Your task to perform on an android device: install app "Google Chat" Image 0: 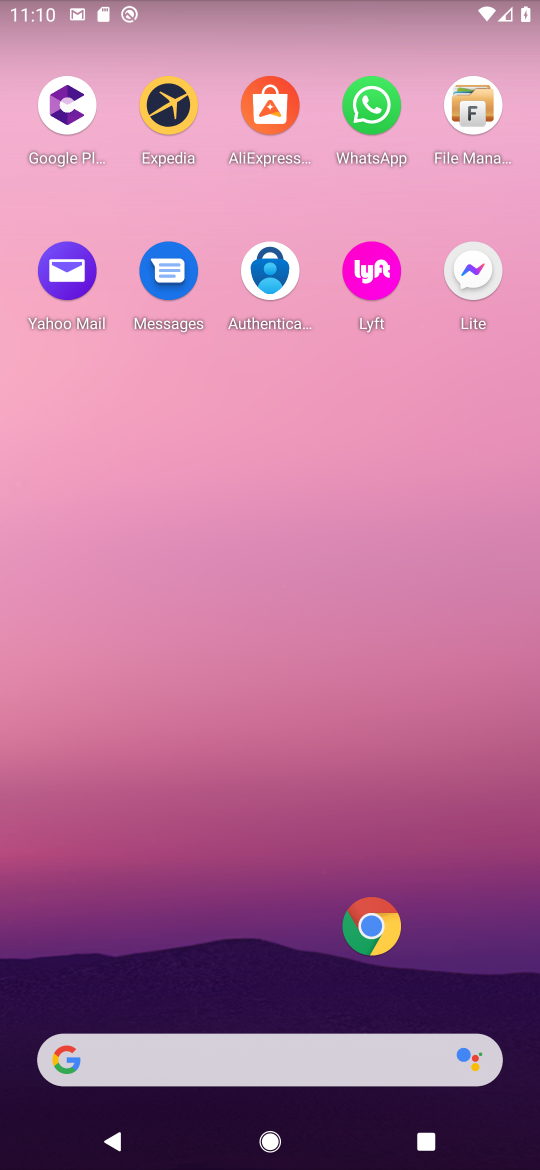
Step 0: drag from (223, 998) to (392, 212)
Your task to perform on an android device: install app "Google Chat" Image 1: 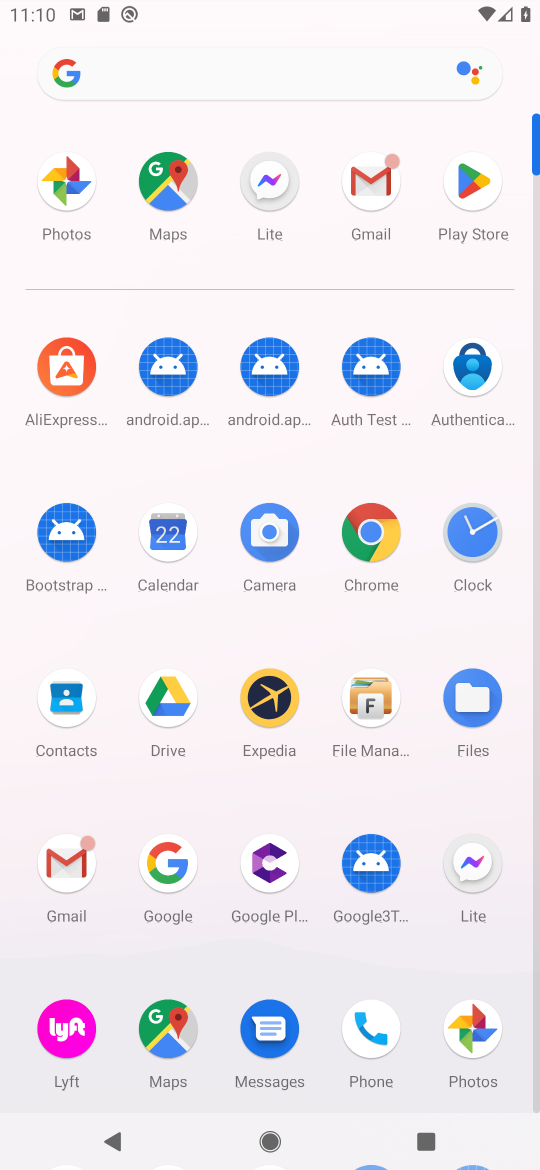
Step 1: click (458, 194)
Your task to perform on an android device: install app "Google Chat" Image 2: 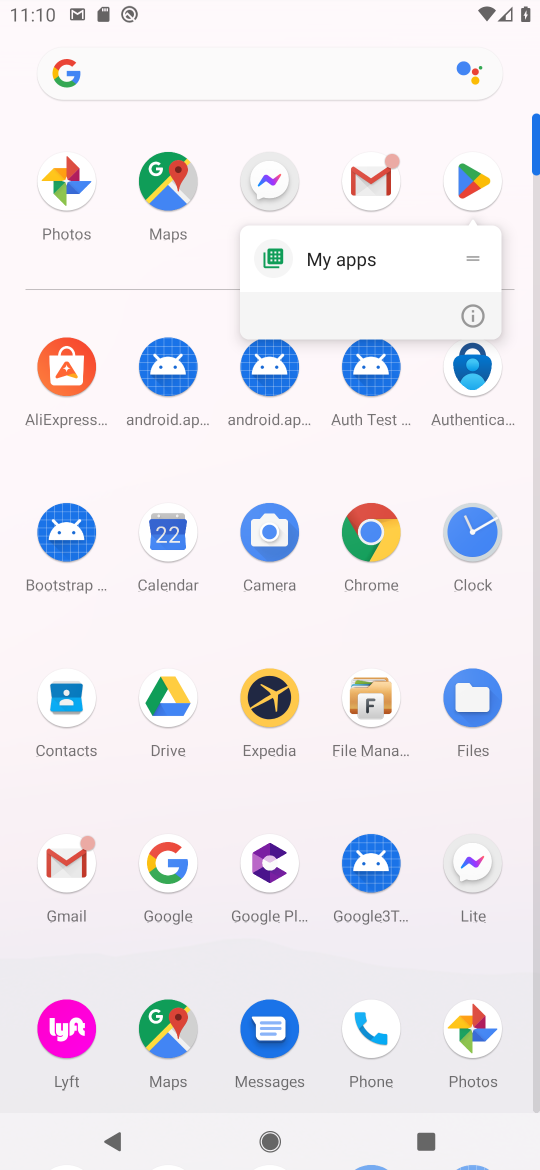
Step 2: click (471, 180)
Your task to perform on an android device: install app "Google Chat" Image 3: 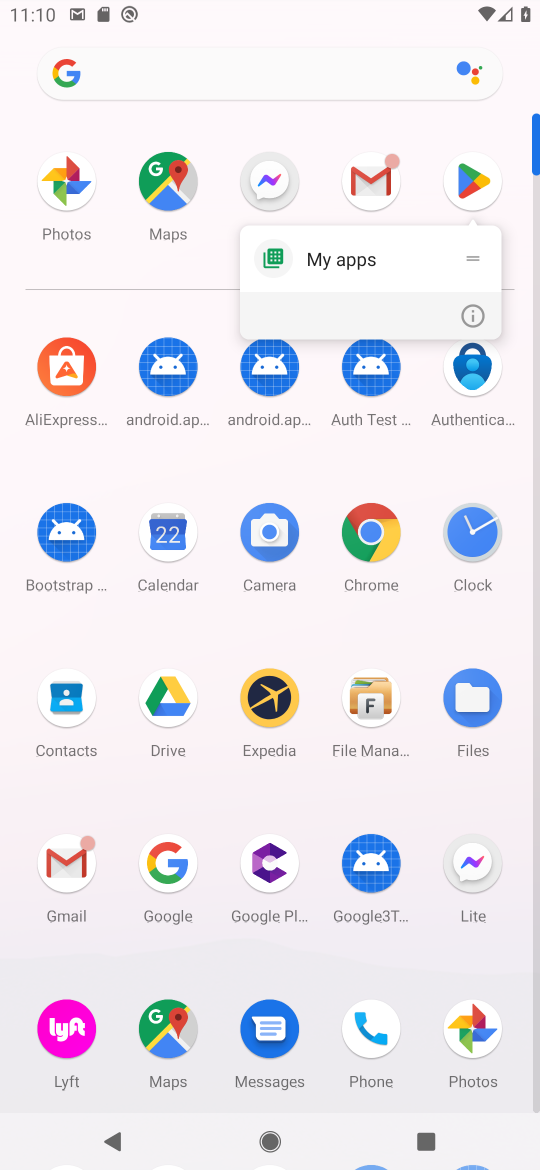
Step 3: click (471, 180)
Your task to perform on an android device: install app "Google Chat" Image 4: 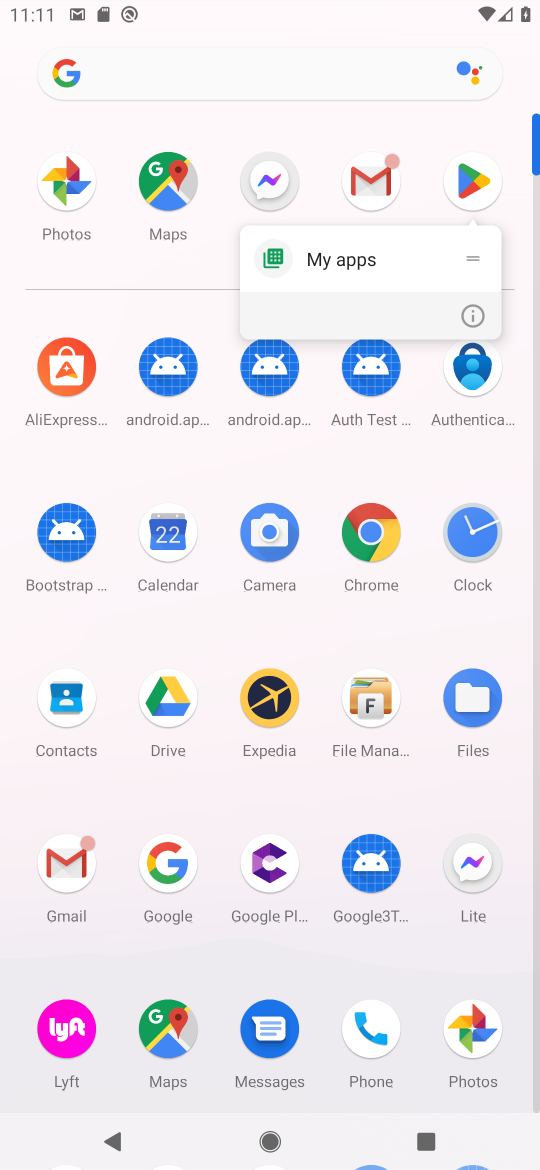
Step 4: click (479, 180)
Your task to perform on an android device: install app "Google Chat" Image 5: 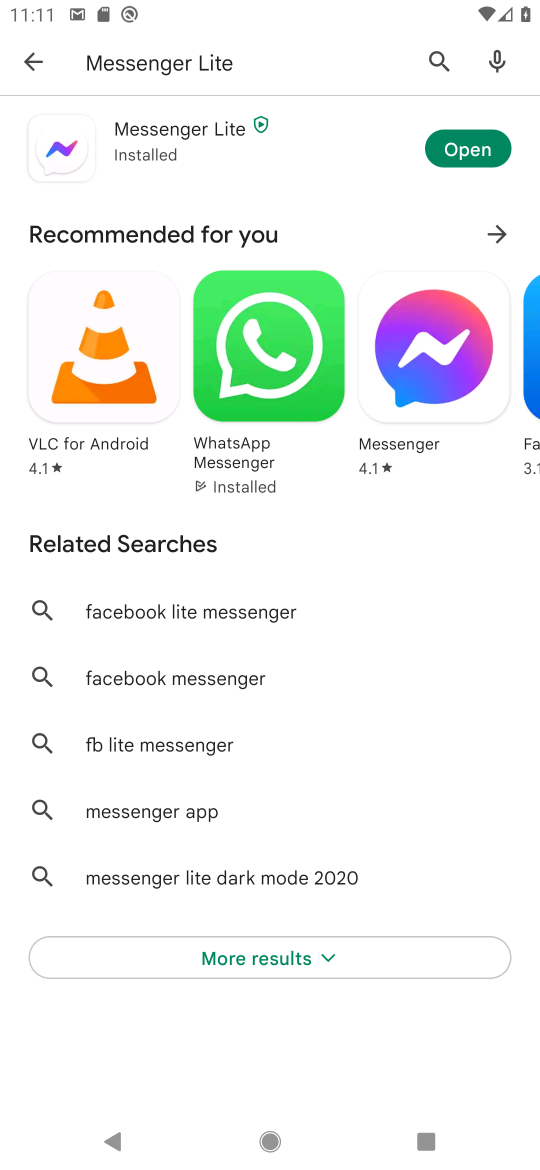
Step 5: press back button
Your task to perform on an android device: install app "Google Chat" Image 6: 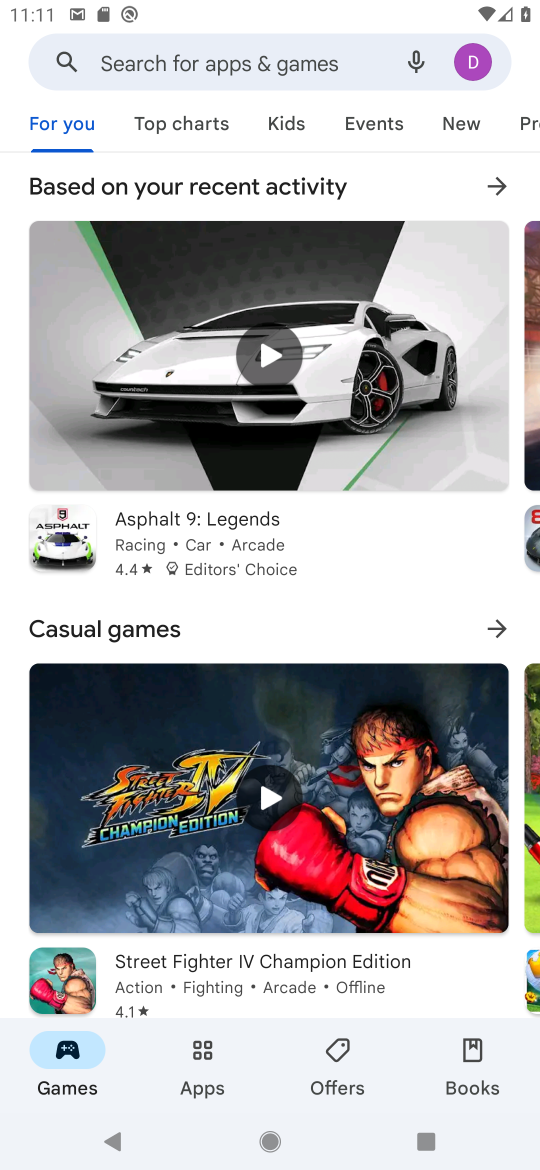
Step 6: click (260, 62)
Your task to perform on an android device: install app "Google Chat" Image 7: 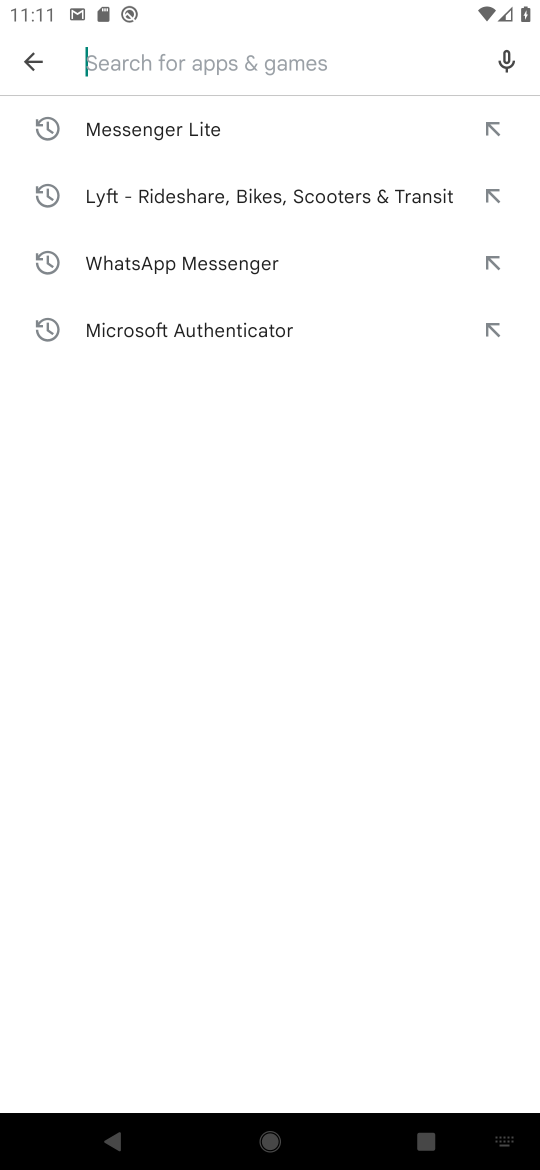
Step 7: type "Google Chat"
Your task to perform on an android device: install app "Google Chat" Image 8: 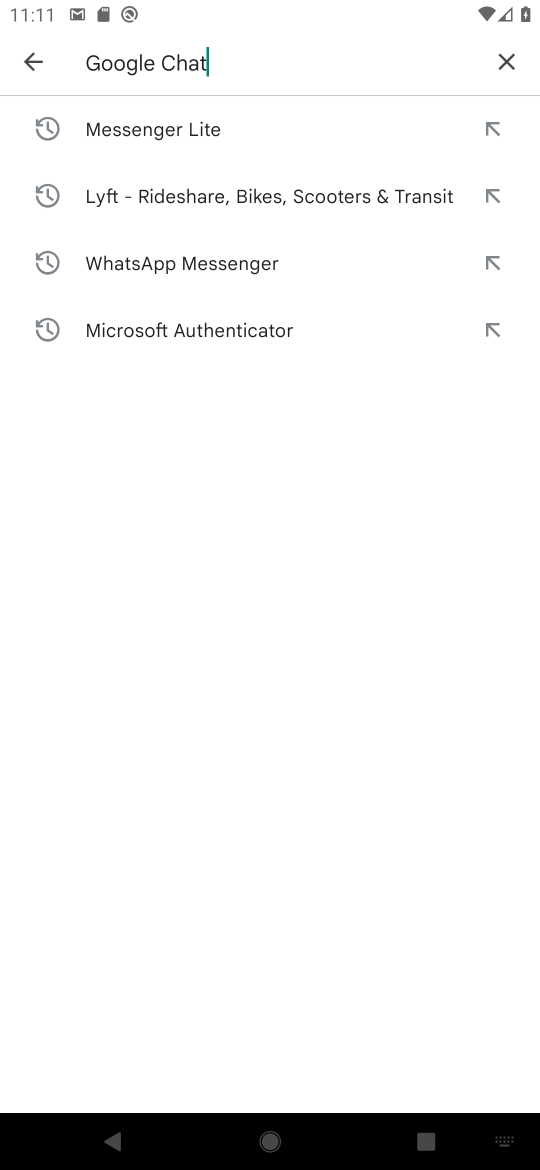
Step 8: press enter
Your task to perform on an android device: install app "Google Chat" Image 9: 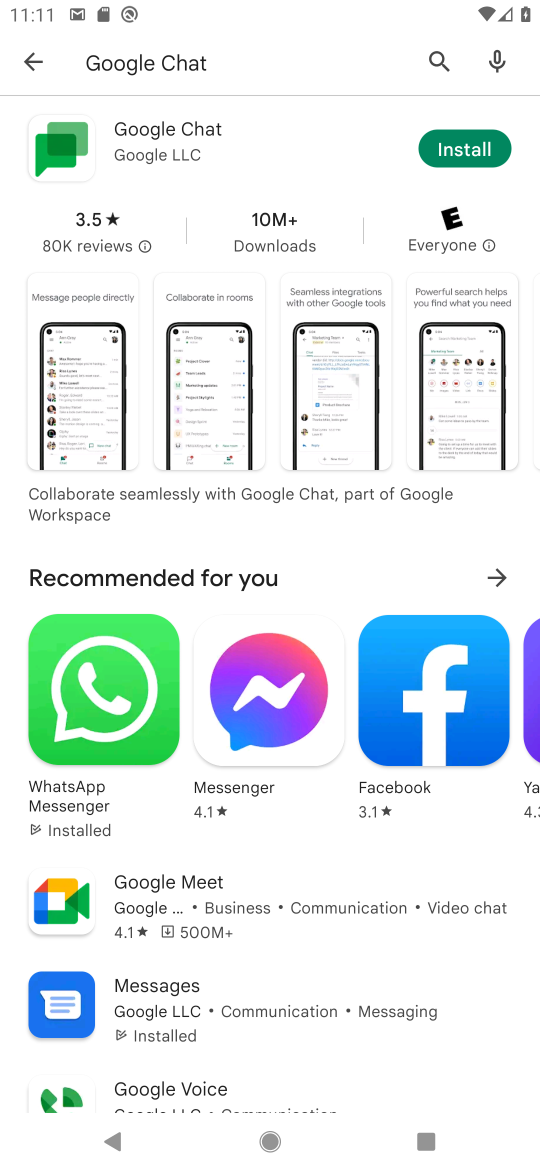
Step 9: click (482, 146)
Your task to perform on an android device: install app "Google Chat" Image 10: 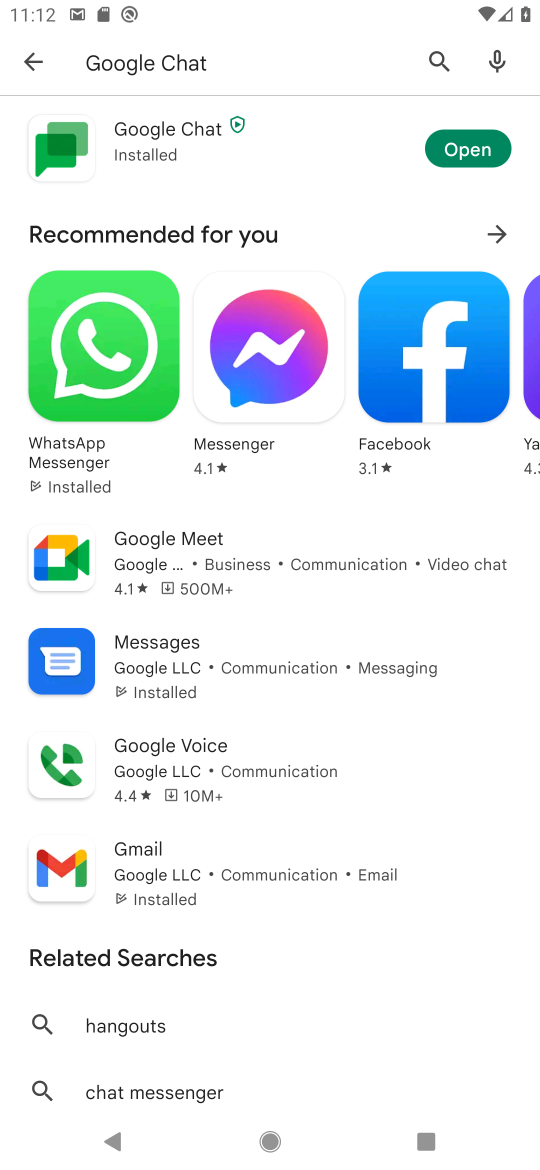
Step 10: task complete